Your task to perform on an android device: turn on sleep mode Image 0: 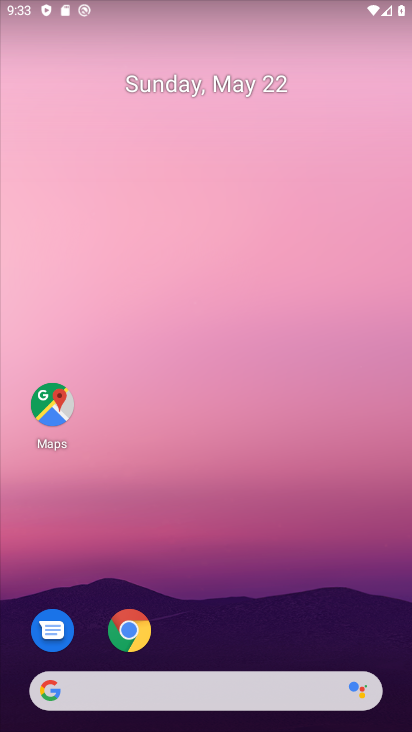
Step 0: drag from (398, 692) to (397, 210)
Your task to perform on an android device: turn on sleep mode Image 1: 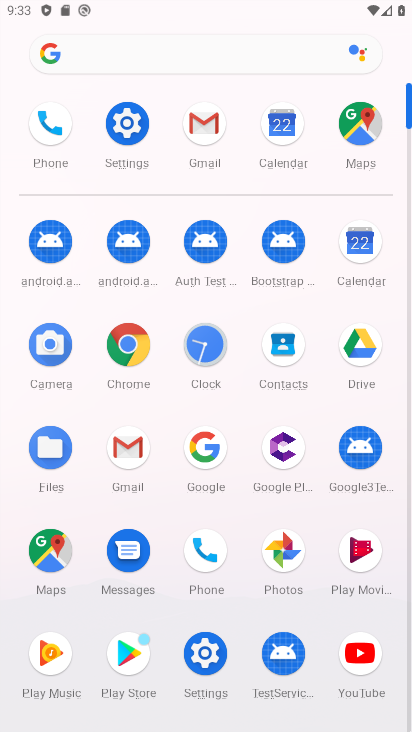
Step 1: click (110, 123)
Your task to perform on an android device: turn on sleep mode Image 2: 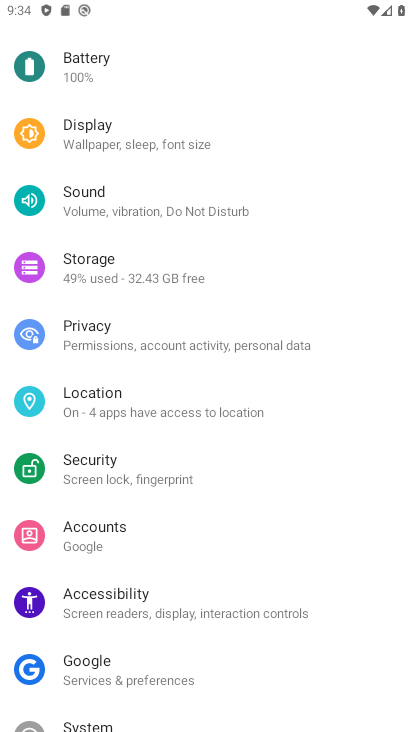
Step 2: click (99, 132)
Your task to perform on an android device: turn on sleep mode Image 3: 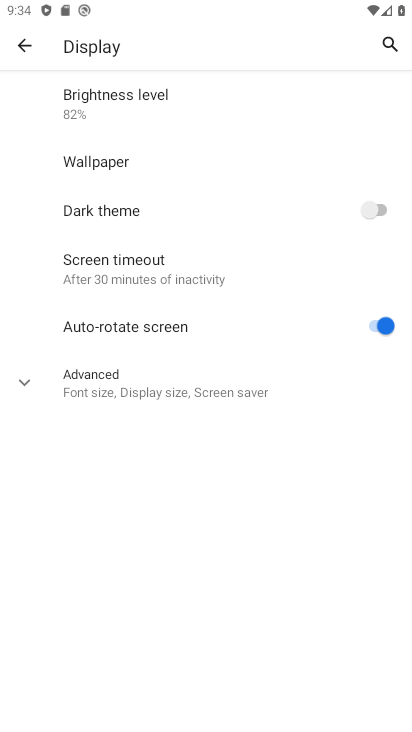
Step 3: click (109, 269)
Your task to perform on an android device: turn on sleep mode Image 4: 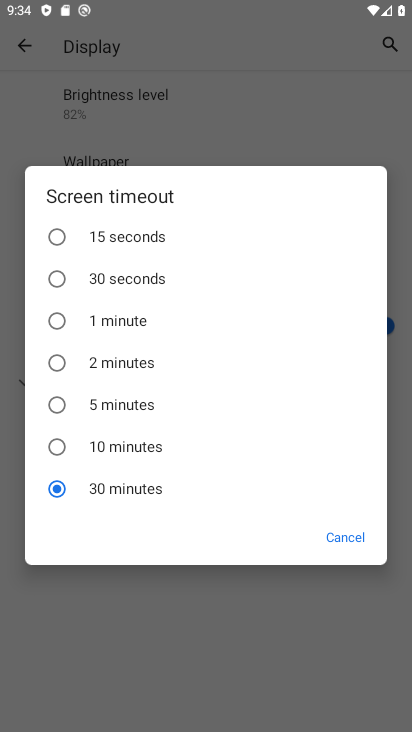
Step 4: task complete